Your task to perform on an android device: turn smart compose on in the gmail app Image 0: 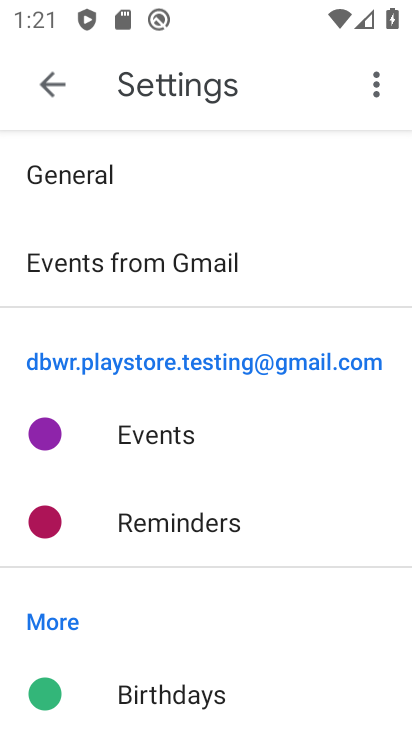
Step 0: press home button
Your task to perform on an android device: turn smart compose on in the gmail app Image 1: 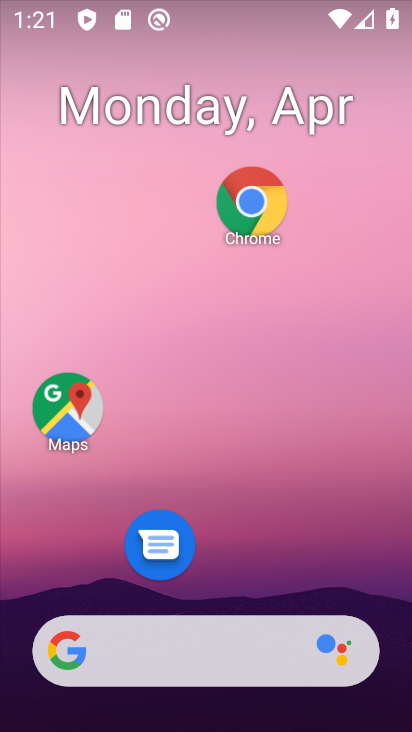
Step 1: drag from (243, 578) to (290, 126)
Your task to perform on an android device: turn smart compose on in the gmail app Image 2: 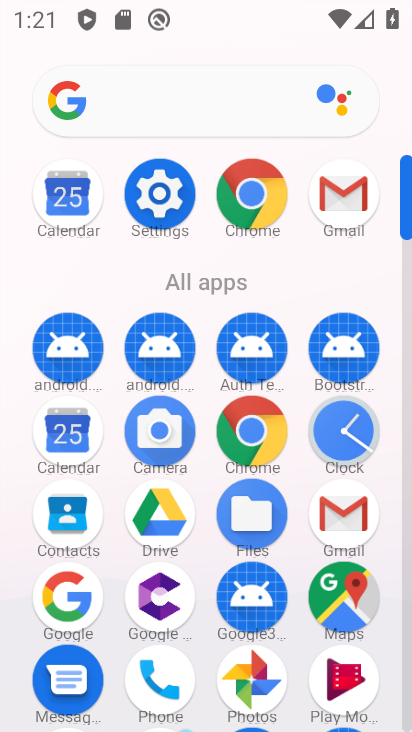
Step 2: click (352, 517)
Your task to perform on an android device: turn smart compose on in the gmail app Image 3: 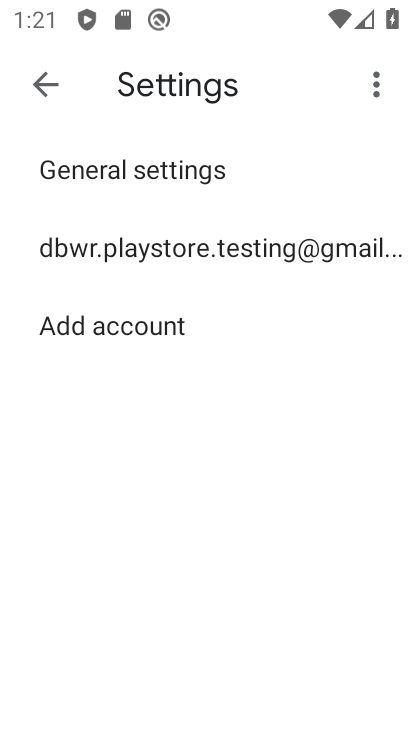
Step 3: click (167, 246)
Your task to perform on an android device: turn smart compose on in the gmail app Image 4: 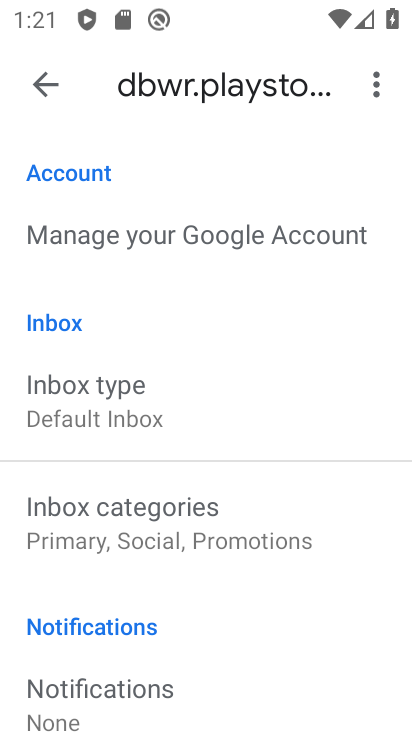
Step 4: task complete